Your task to perform on an android device: open wifi settings Image 0: 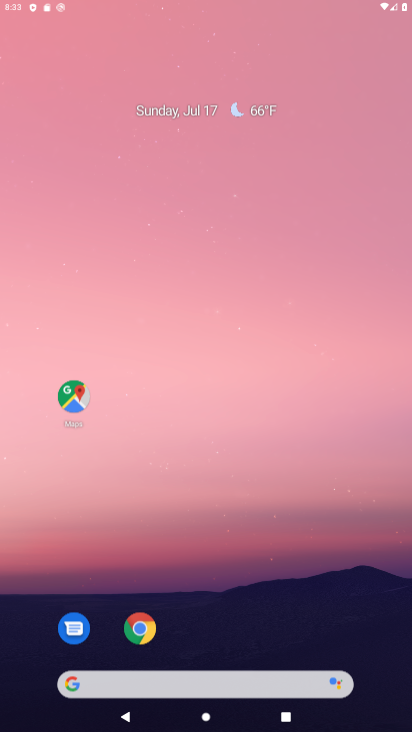
Step 0: press home button
Your task to perform on an android device: open wifi settings Image 1: 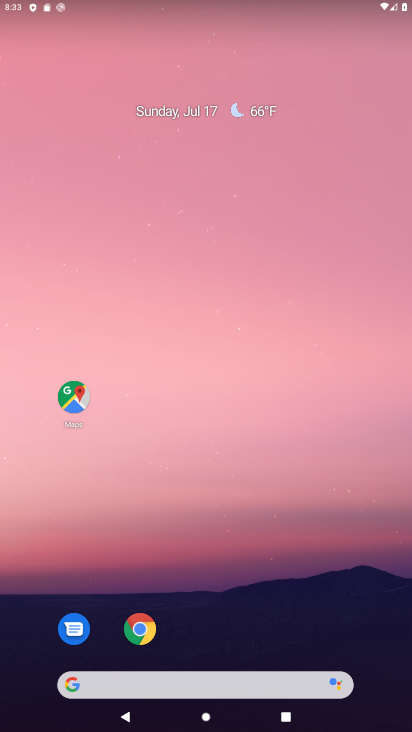
Step 1: drag from (227, 632) to (218, 0)
Your task to perform on an android device: open wifi settings Image 2: 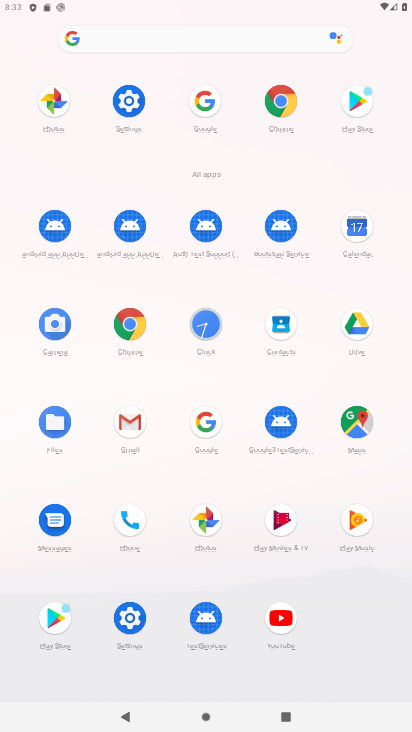
Step 2: click (125, 97)
Your task to perform on an android device: open wifi settings Image 3: 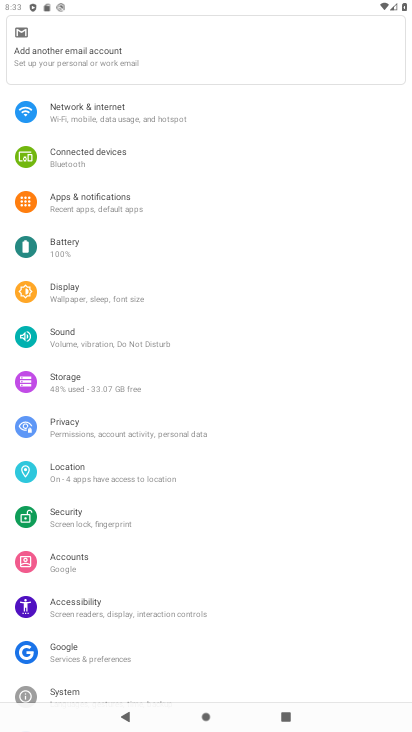
Step 3: click (137, 106)
Your task to perform on an android device: open wifi settings Image 4: 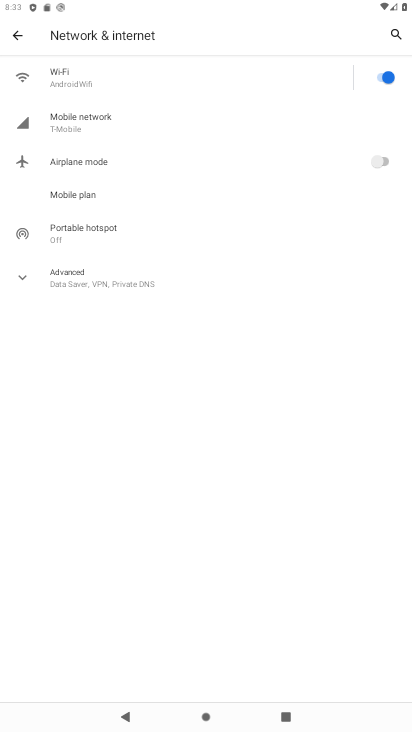
Step 4: click (99, 81)
Your task to perform on an android device: open wifi settings Image 5: 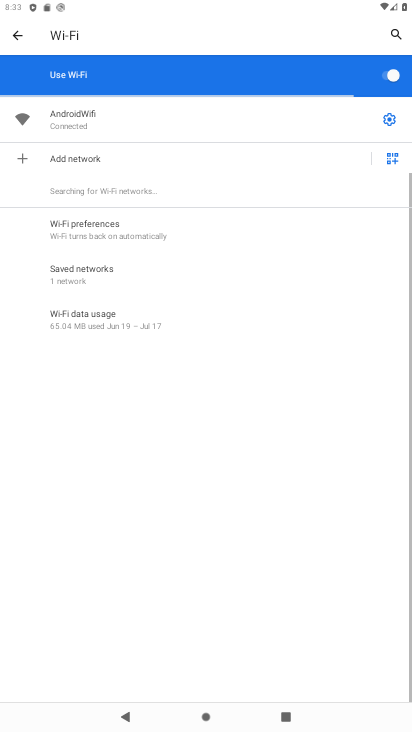
Step 5: task complete